Your task to perform on an android device: Open the phone app and click the voicemail tab. Image 0: 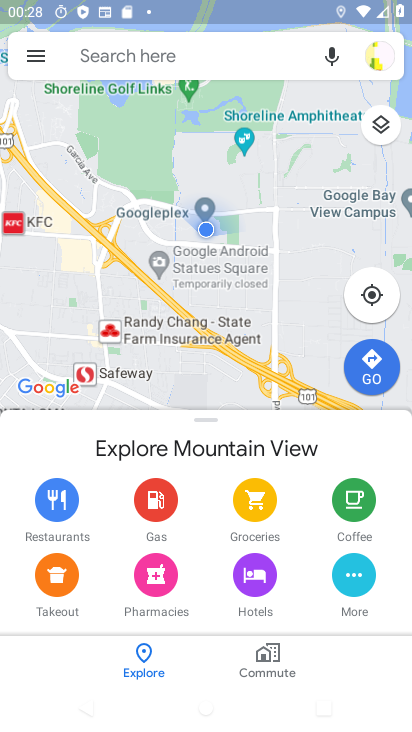
Step 0: press home button
Your task to perform on an android device: Open the phone app and click the voicemail tab. Image 1: 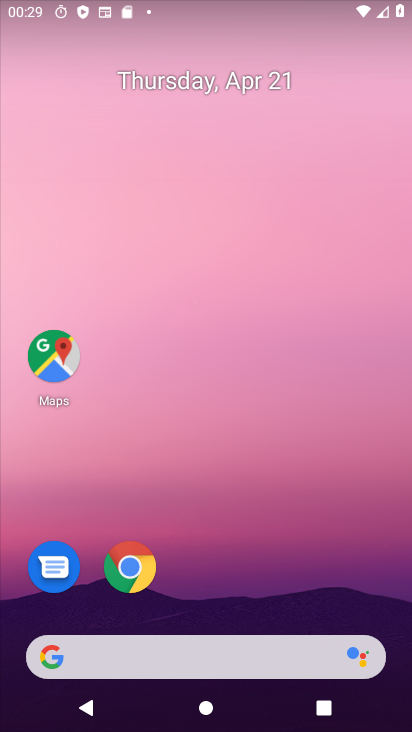
Step 1: drag from (253, 507) to (254, 219)
Your task to perform on an android device: Open the phone app and click the voicemail tab. Image 2: 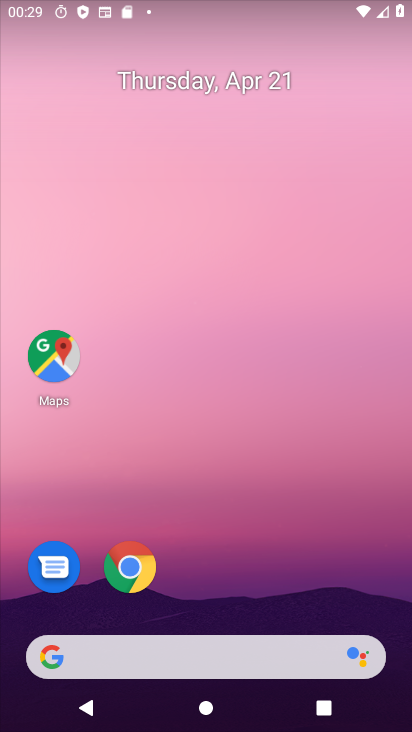
Step 2: drag from (260, 431) to (308, 111)
Your task to perform on an android device: Open the phone app and click the voicemail tab. Image 3: 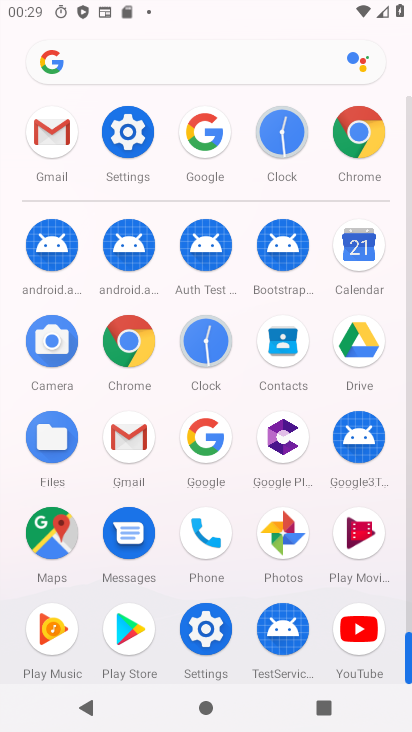
Step 3: click (208, 526)
Your task to perform on an android device: Open the phone app and click the voicemail tab. Image 4: 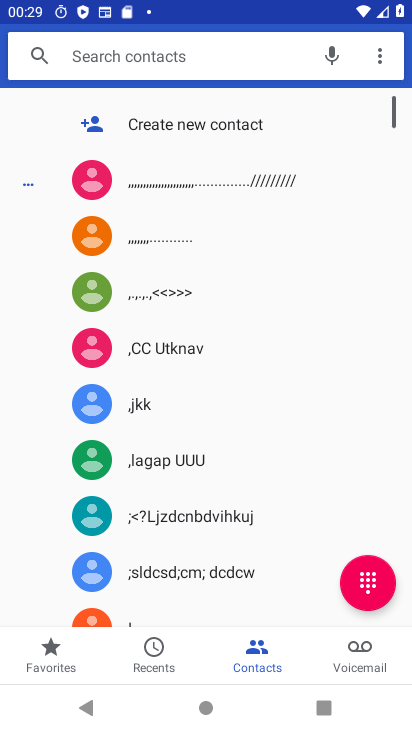
Step 4: click (359, 648)
Your task to perform on an android device: Open the phone app and click the voicemail tab. Image 5: 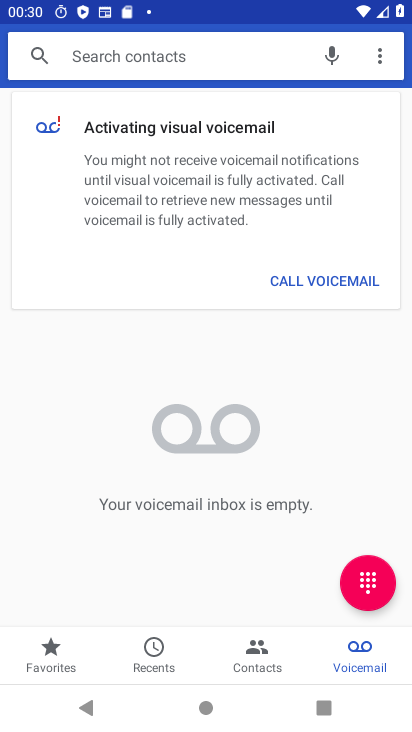
Step 5: task complete